Your task to perform on an android device: delete location history Image 0: 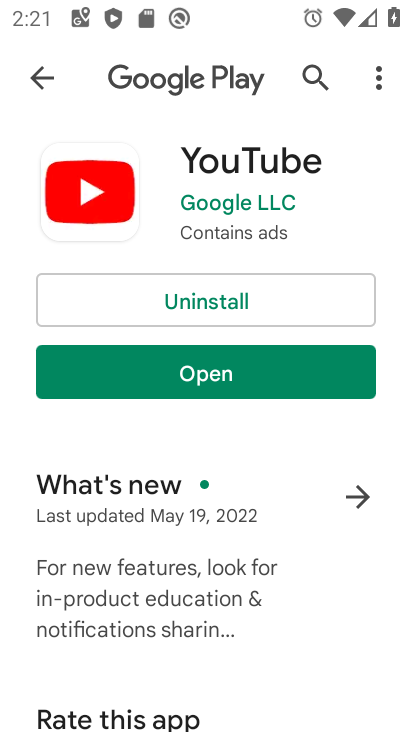
Step 0: press home button
Your task to perform on an android device: delete location history Image 1: 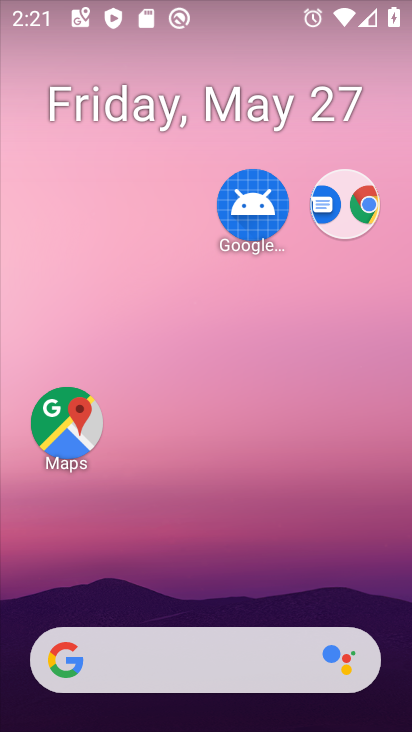
Step 1: drag from (247, 637) to (411, 122)
Your task to perform on an android device: delete location history Image 2: 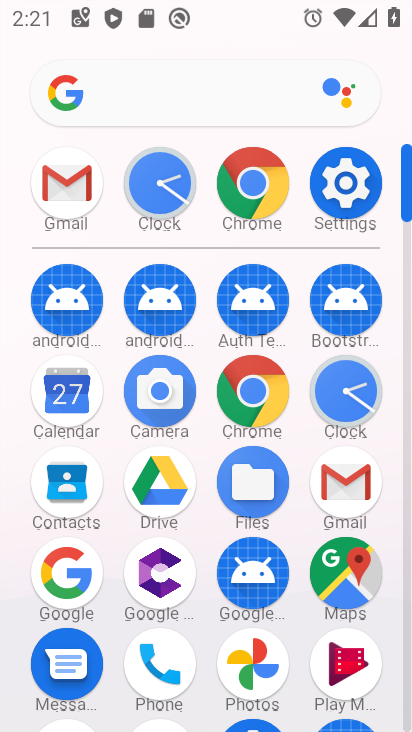
Step 2: click (339, 204)
Your task to perform on an android device: delete location history Image 3: 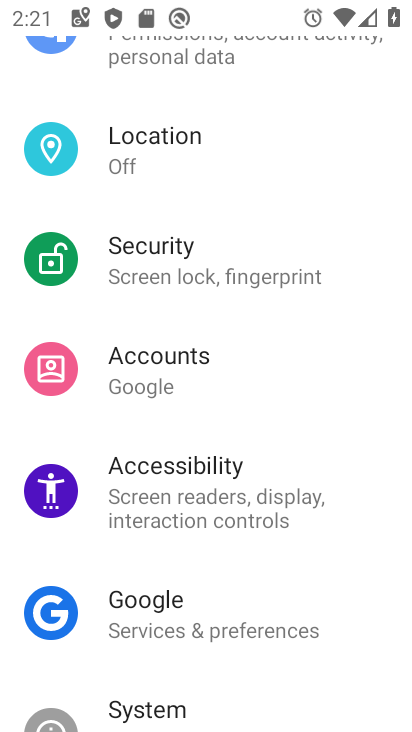
Step 3: drag from (226, 446) to (293, 237)
Your task to perform on an android device: delete location history Image 4: 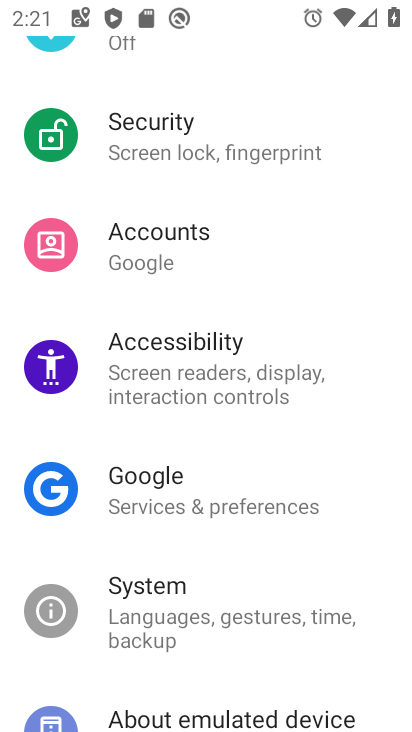
Step 4: drag from (249, 275) to (269, 421)
Your task to perform on an android device: delete location history Image 5: 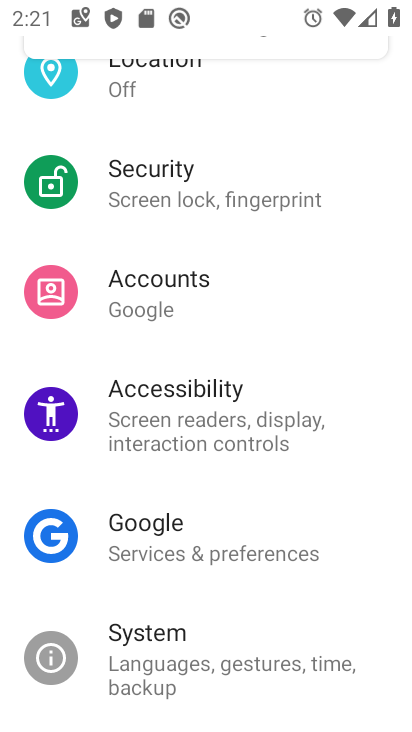
Step 5: click (233, 94)
Your task to perform on an android device: delete location history Image 6: 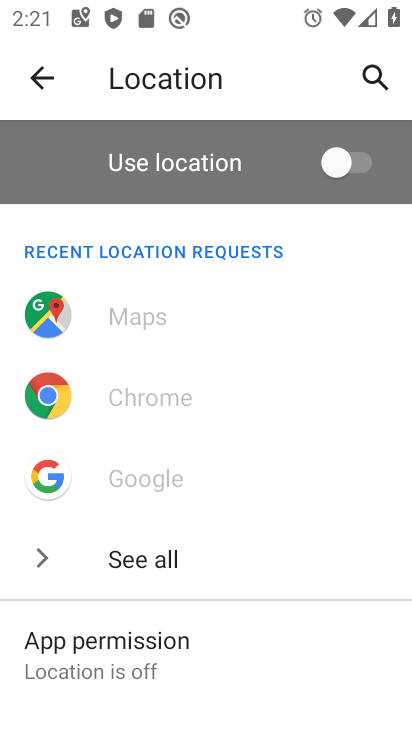
Step 6: drag from (85, 544) to (105, 246)
Your task to perform on an android device: delete location history Image 7: 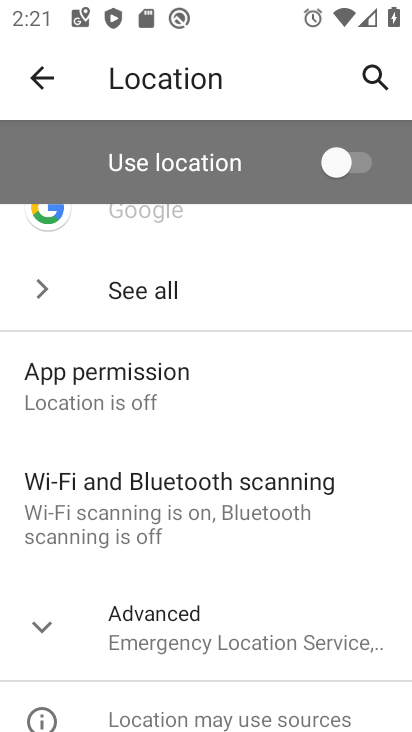
Step 7: click (150, 625)
Your task to perform on an android device: delete location history Image 8: 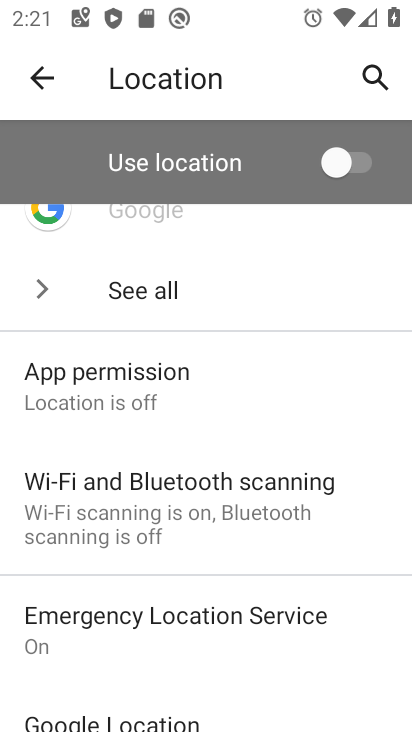
Step 8: drag from (151, 630) to (207, 344)
Your task to perform on an android device: delete location history Image 9: 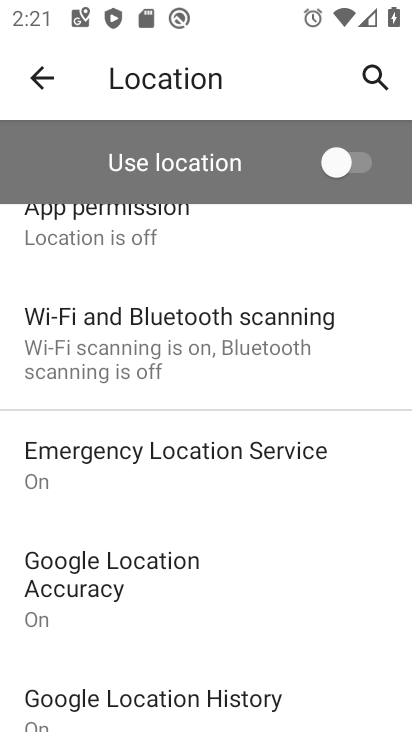
Step 9: drag from (198, 604) to (253, 374)
Your task to perform on an android device: delete location history Image 10: 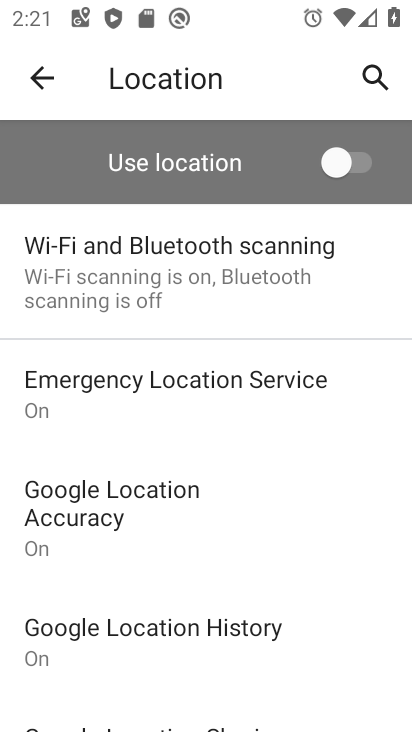
Step 10: click (233, 641)
Your task to perform on an android device: delete location history Image 11: 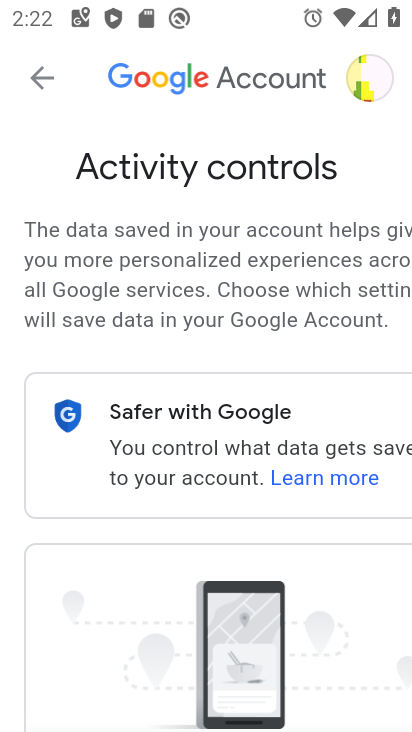
Step 11: drag from (266, 657) to (97, 384)
Your task to perform on an android device: delete location history Image 12: 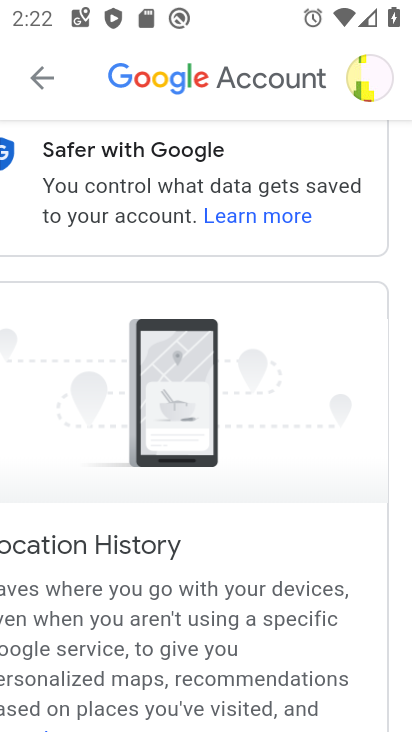
Step 12: drag from (274, 509) to (208, 331)
Your task to perform on an android device: delete location history Image 13: 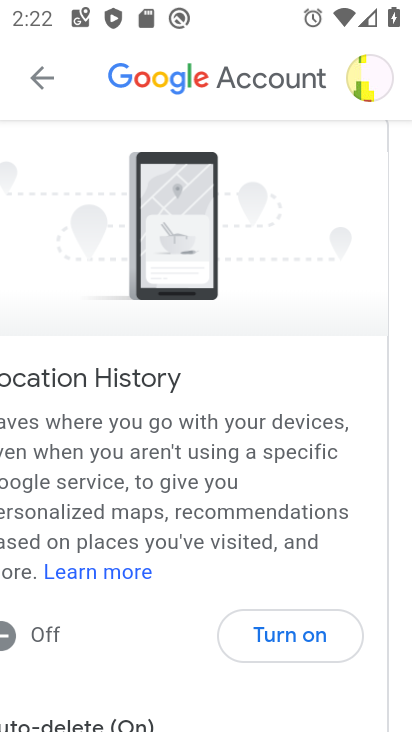
Step 13: drag from (247, 543) to (247, 318)
Your task to perform on an android device: delete location history Image 14: 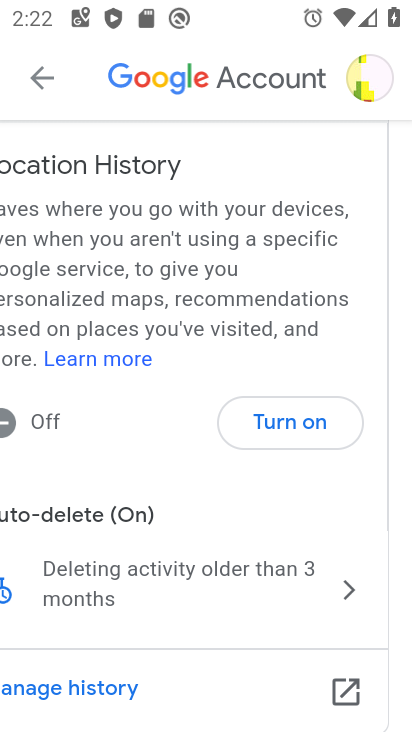
Step 14: click (256, 572)
Your task to perform on an android device: delete location history Image 15: 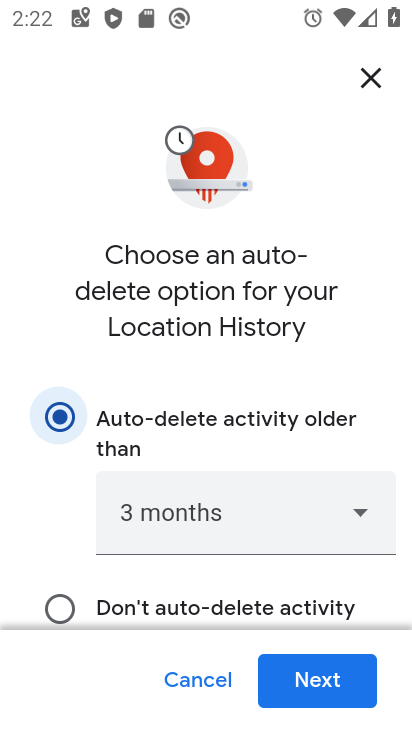
Step 15: drag from (273, 595) to (243, 307)
Your task to perform on an android device: delete location history Image 16: 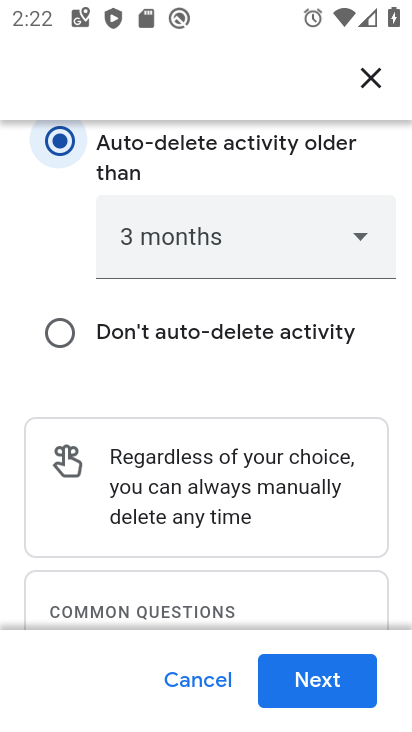
Step 16: drag from (255, 541) to (203, 199)
Your task to perform on an android device: delete location history Image 17: 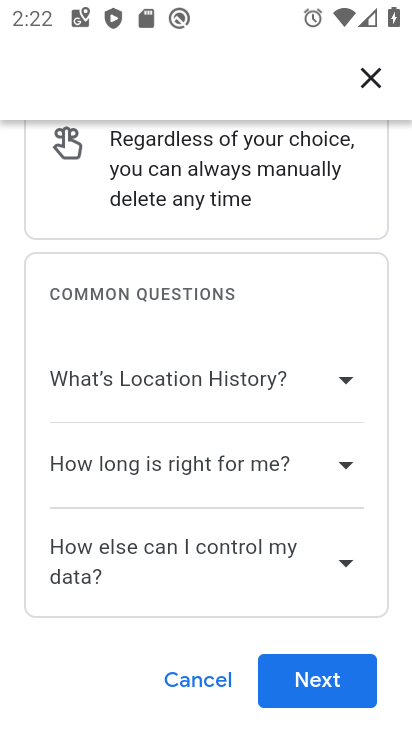
Step 17: click (326, 666)
Your task to perform on an android device: delete location history Image 18: 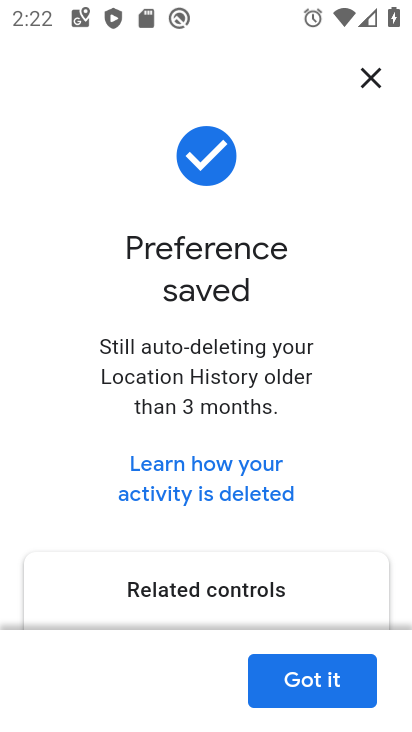
Step 18: click (326, 666)
Your task to perform on an android device: delete location history Image 19: 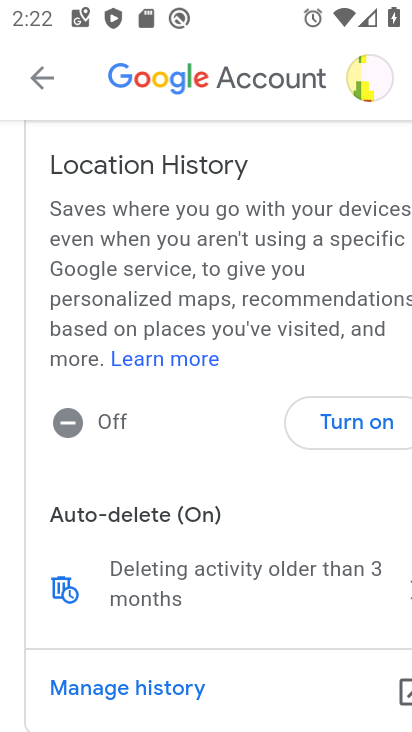
Step 19: task complete